Your task to perform on an android device: move an email to a new category in the gmail app Image 0: 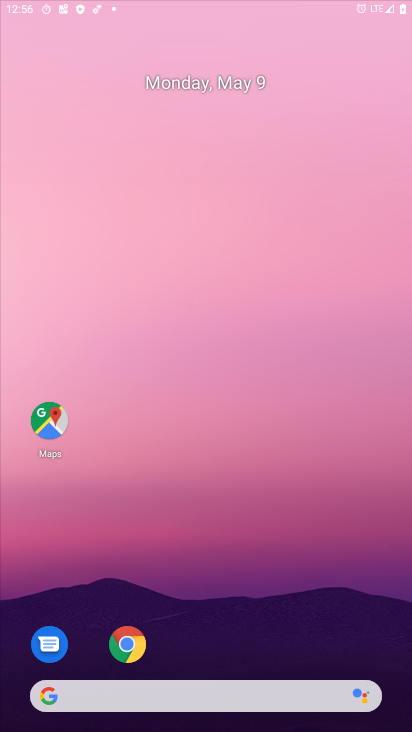
Step 0: click (28, 51)
Your task to perform on an android device: move an email to a new category in the gmail app Image 1: 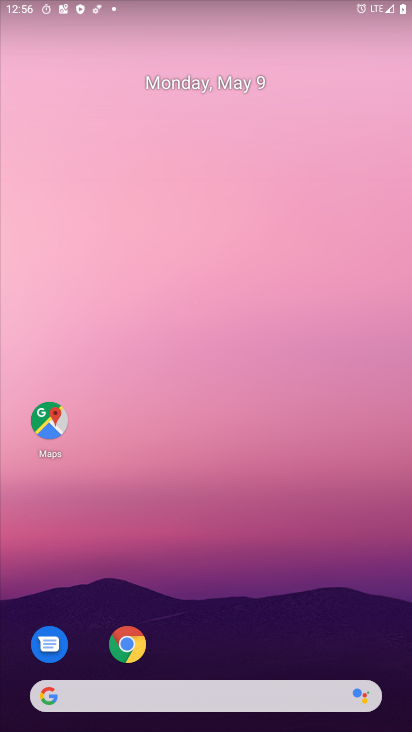
Step 1: drag from (360, 647) to (289, 292)
Your task to perform on an android device: move an email to a new category in the gmail app Image 2: 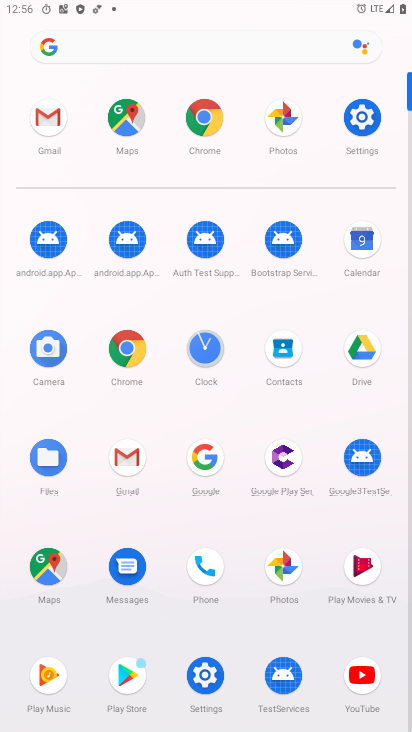
Step 2: click (50, 113)
Your task to perform on an android device: move an email to a new category in the gmail app Image 3: 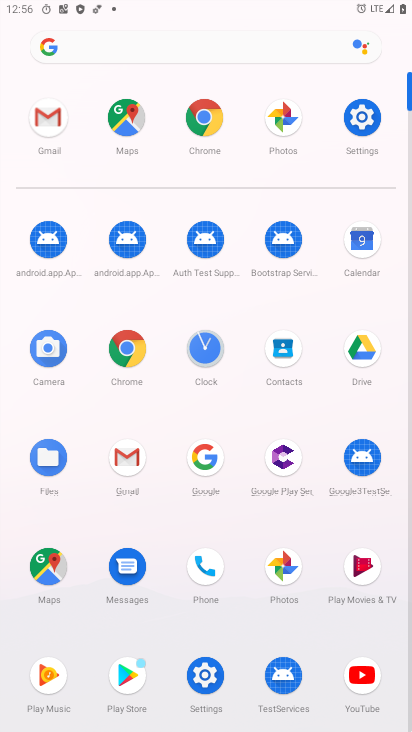
Step 3: click (55, 126)
Your task to perform on an android device: move an email to a new category in the gmail app Image 4: 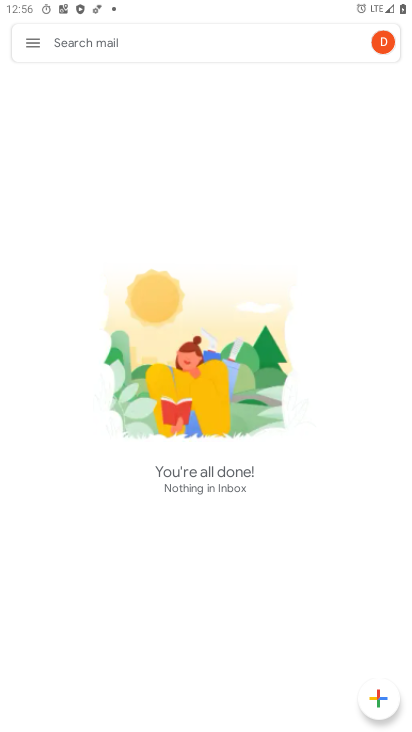
Step 4: click (23, 44)
Your task to perform on an android device: move an email to a new category in the gmail app Image 5: 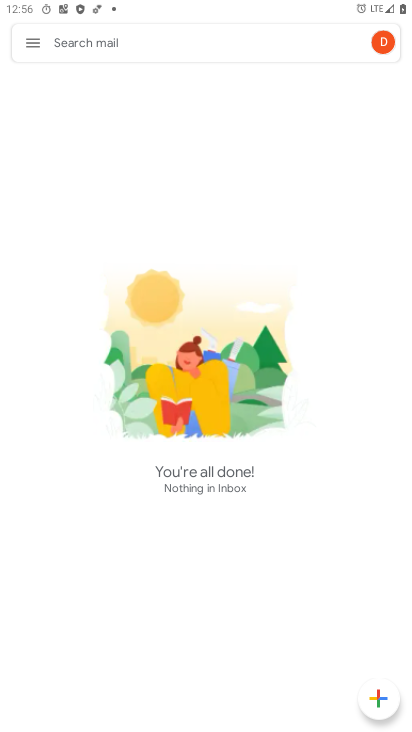
Step 5: click (28, 41)
Your task to perform on an android device: move an email to a new category in the gmail app Image 6: 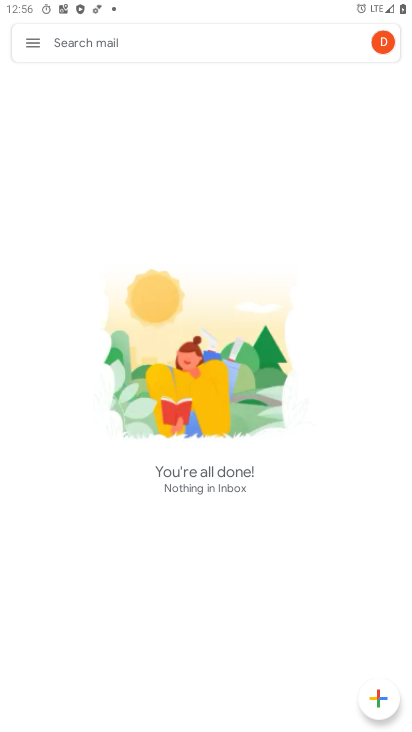
Step 6: click (26, 44)
Your task to perform on an android device: move an email to a new category in the gmail app Image 7: 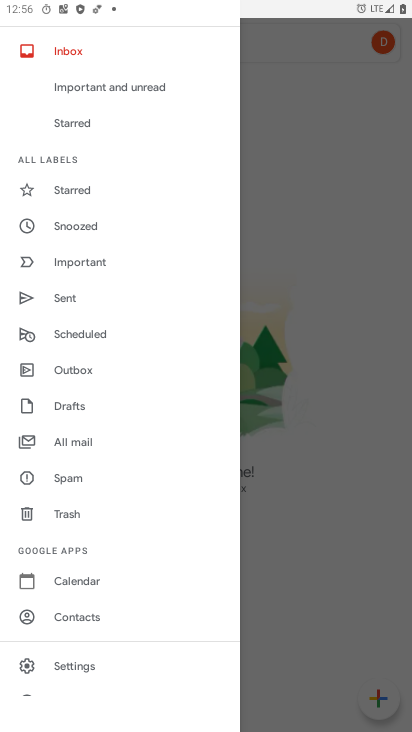
Step 7: click (69, 443)
Your task to perform on an android device: move an email to a new category in the gmail app Image 8: 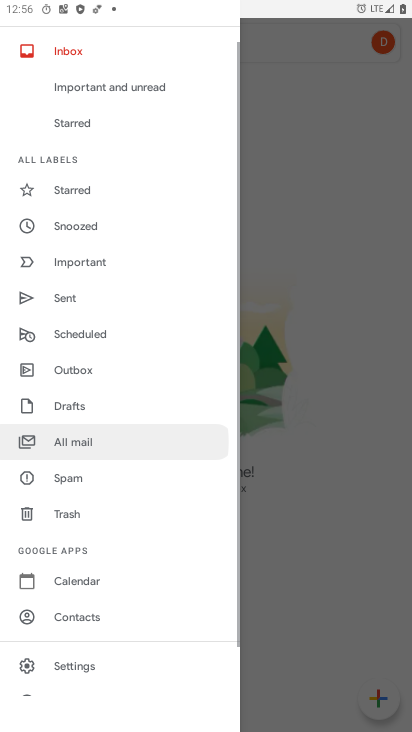
Step 8: task complete